Your task to perform on an android device: Do I have any events this weekend? Image 0: 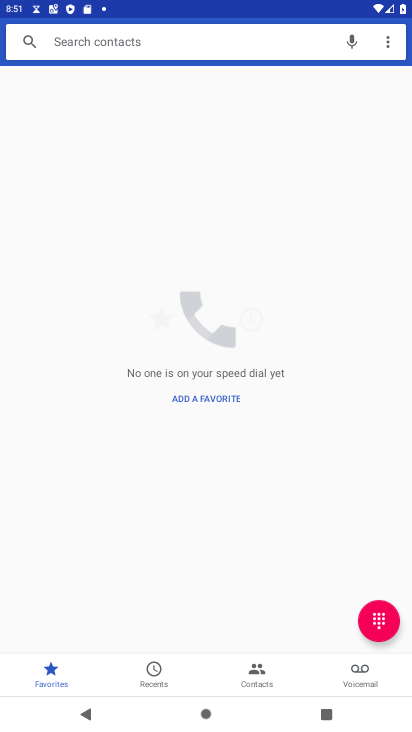
Step 0: press back button
Your task to perform on an android device: Do I have any events this weekend? Image 1: 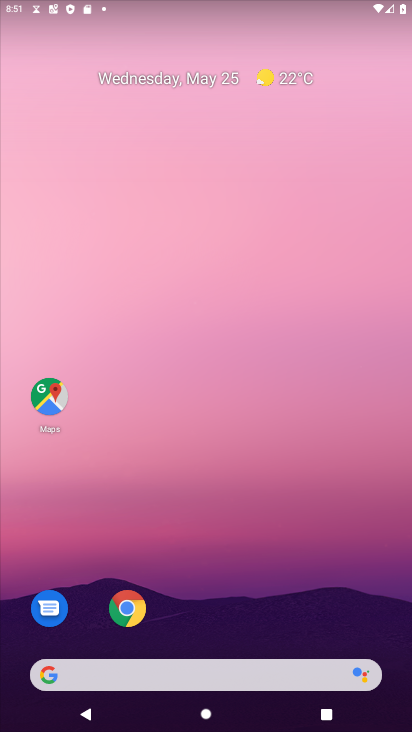
Step 1: drag from (263, 605) to (271, 105)
Your task to perform on an android device: Do I have any events this weekend? Image 2: 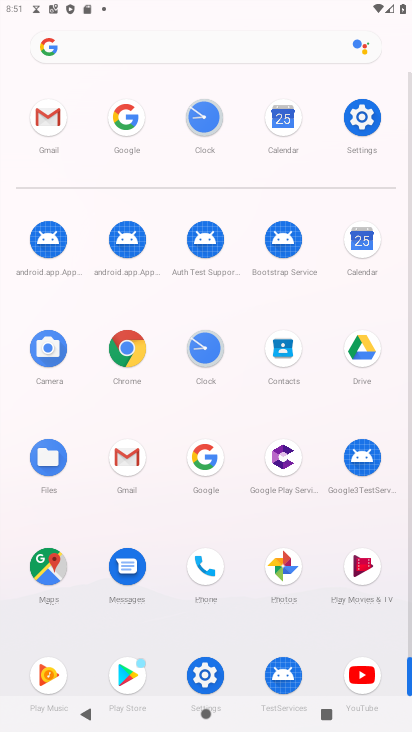
Step 2: click (364, 240)
Your task to perform on an android device: Do I have any events this weekend? Image 3: 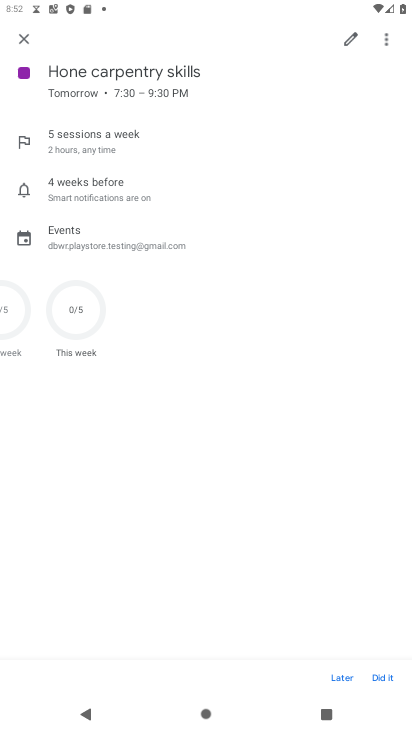
Step 3: click (22, 42)
Your task to perform on an android device: Do I have any events this weekend? Image 4: 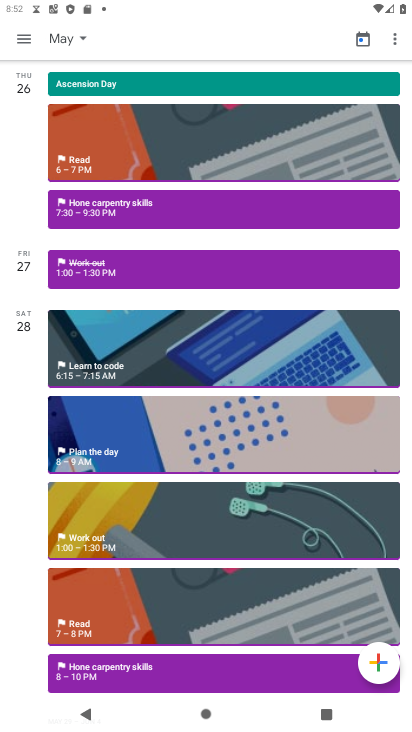
Step 4: click (365, 39)
Your task to perform on an android device: Do I have any events this weekend? Image 5: 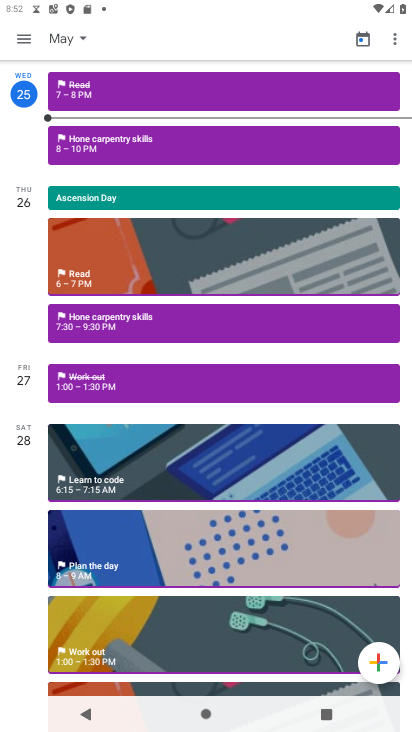
Step 5: click (79, 36)
Your task to perform on an android device: Do I have any events this weekend? Image 6: 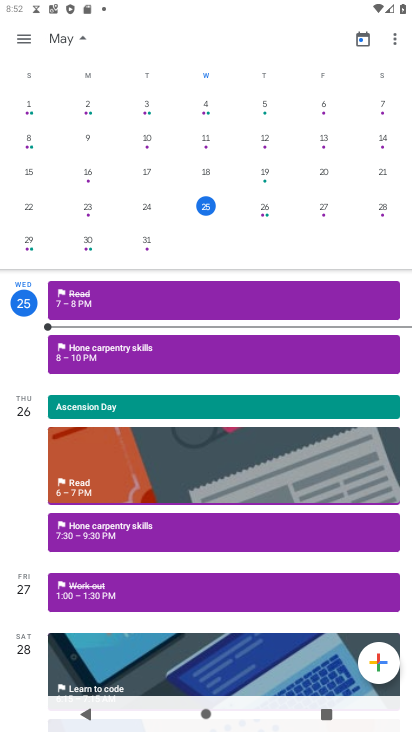
Step 6: click (381, 208)
Your task to perform on an android device: Do I have any events this weekend? Image 7: 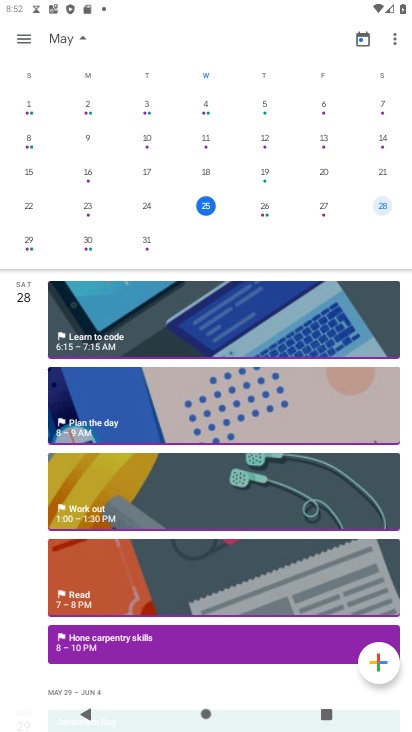
Step 7: click (13, 41)
Your task to perform on an android device: Do I have any events this weekend? Image 8: 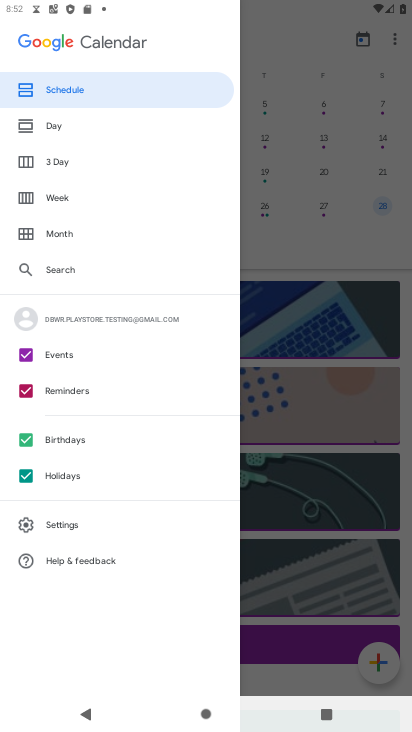
Step 8: click (63, 200)
Your task to perform on an android device: Do I have any events this weekend? Image 9: 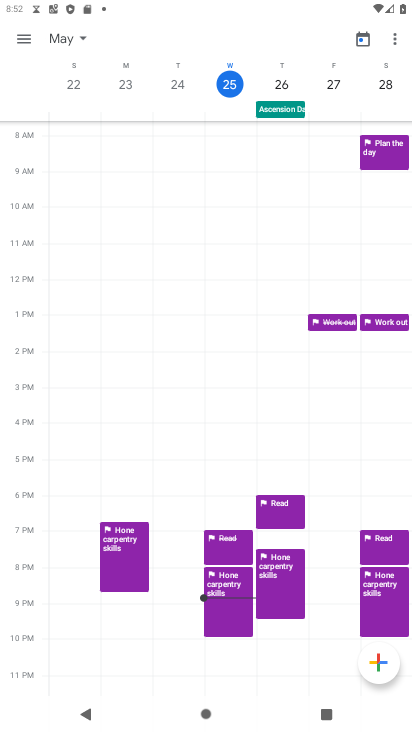
Step 9: task complete